Your task to perform on an android device: What is the news today? Image 0: 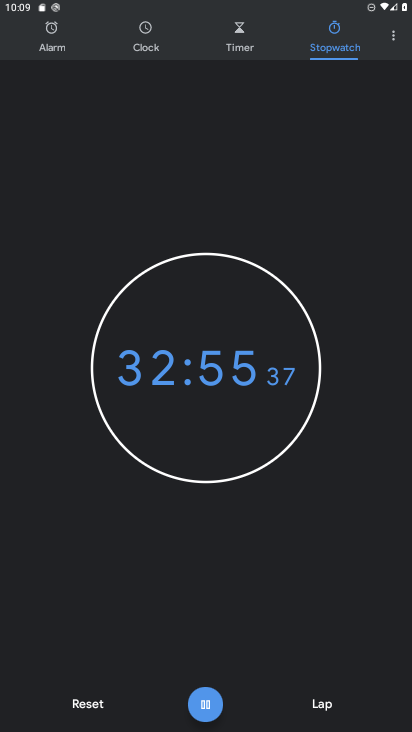
Step 0: press home button
Your task to perform on an android device: What is the news today? Image 1: 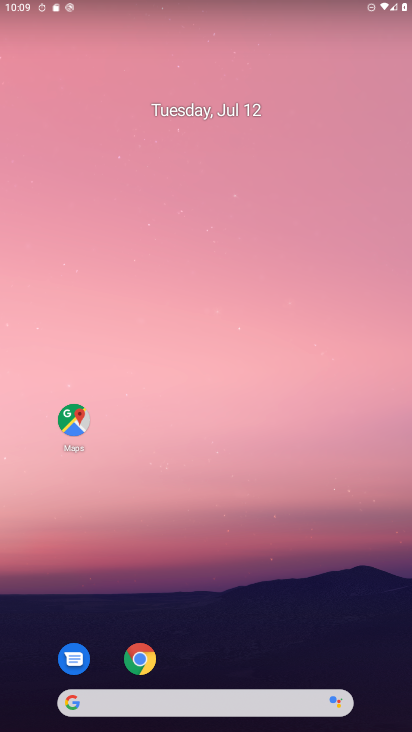
Step 1: task complete